Your task to perform on an android device: What's the weather going to be tomorrow? Image 0: 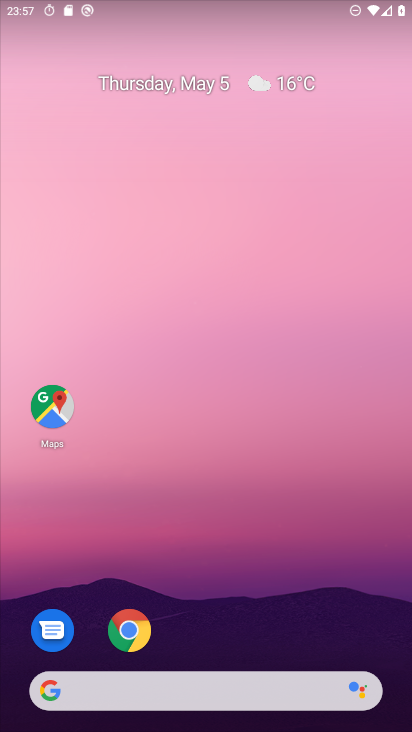
Step 0: drag from (266, 594) to (267, 173)
Your task to perform on an android device: What's the weather going to be tomorrow? Image 1: 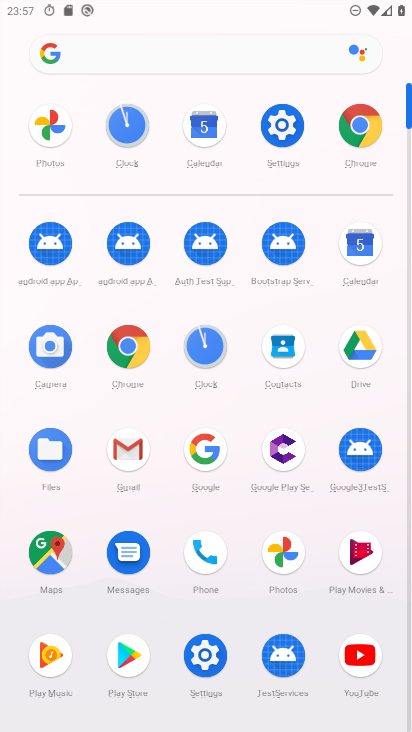
Step 1: press home button
Your task to perform on an android device: What's the weather going to be tomorrow? Image 2: 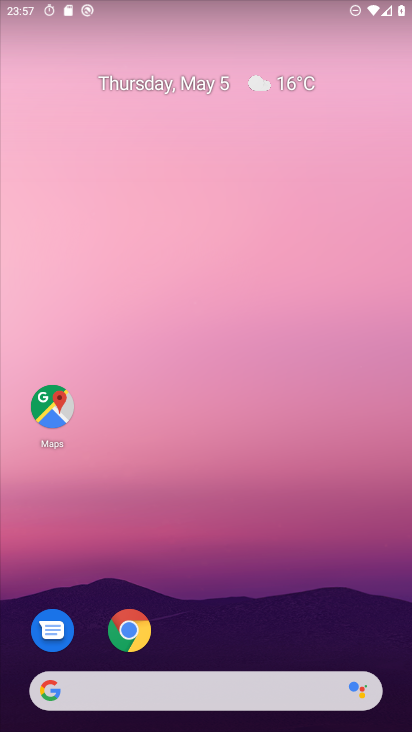
Step 2: click (288, 85)
Your task to perform on an android device: What's the weather going to be tomorrow? Image 3: 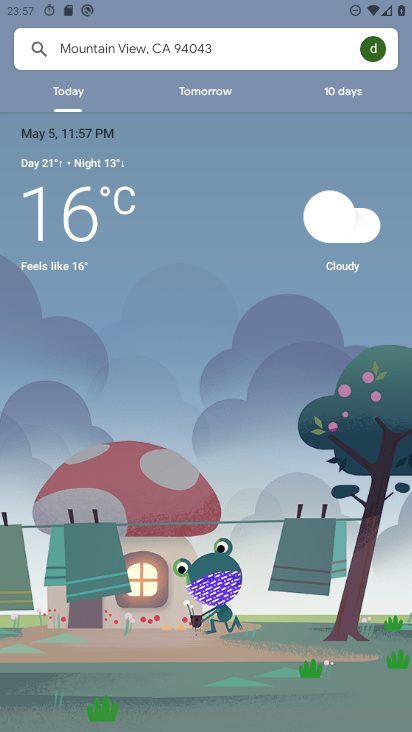
Step 3: click (208, 99)
Your task to perform on an android device: What's the weather going to be tomorrow? Image 4: 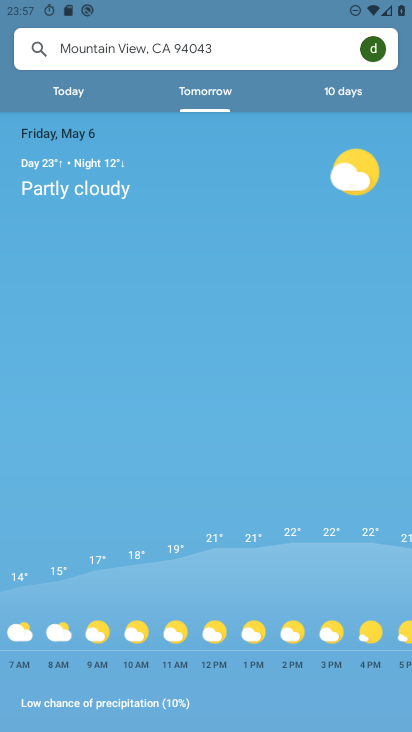
Step 4: task complete